Your task to perform on an android device: change notifications settings Image 0: 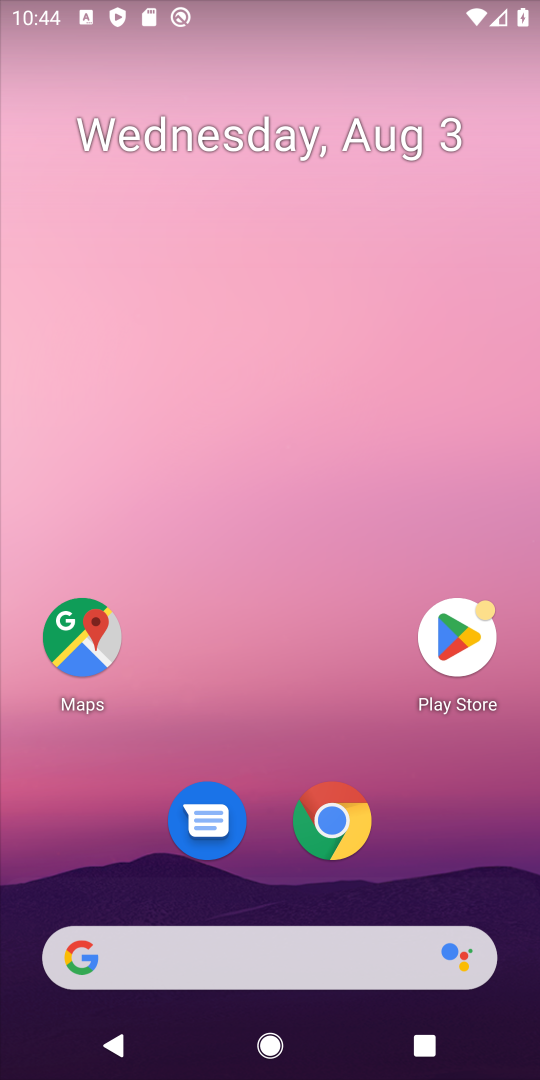
Step 0: drag from (198, 957) to (316, 19)
Your task to perform on an android device: change notifications settings Image 1: 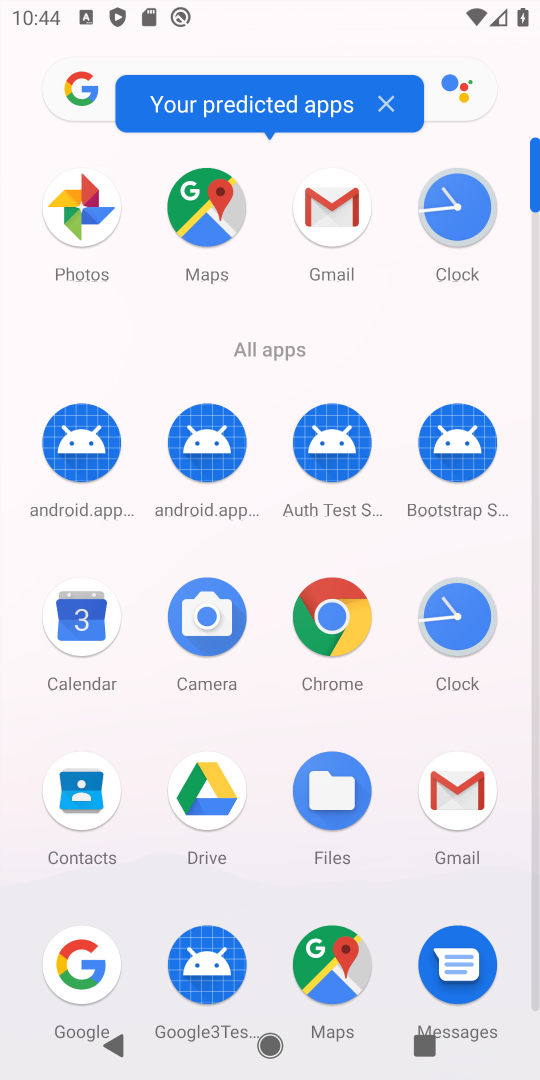
Step 1: drag from (264, 757) to (307, 32)
Your task to perform on an android device: change notifications settings Image 2: 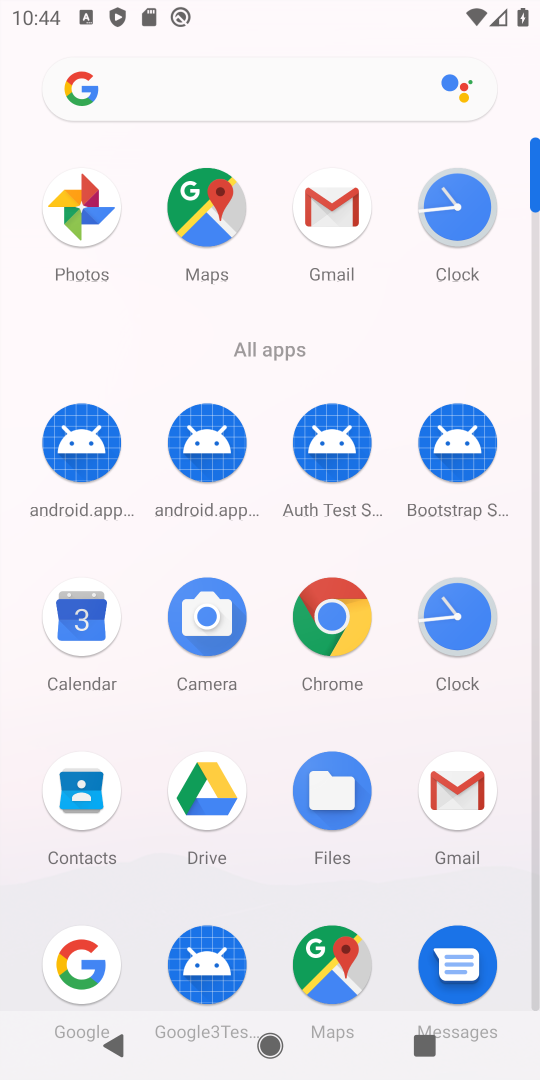
Step 2: drag from (260, 892) to (278, 521)
Your task to perform on an android device: change notifications settings Image 3: 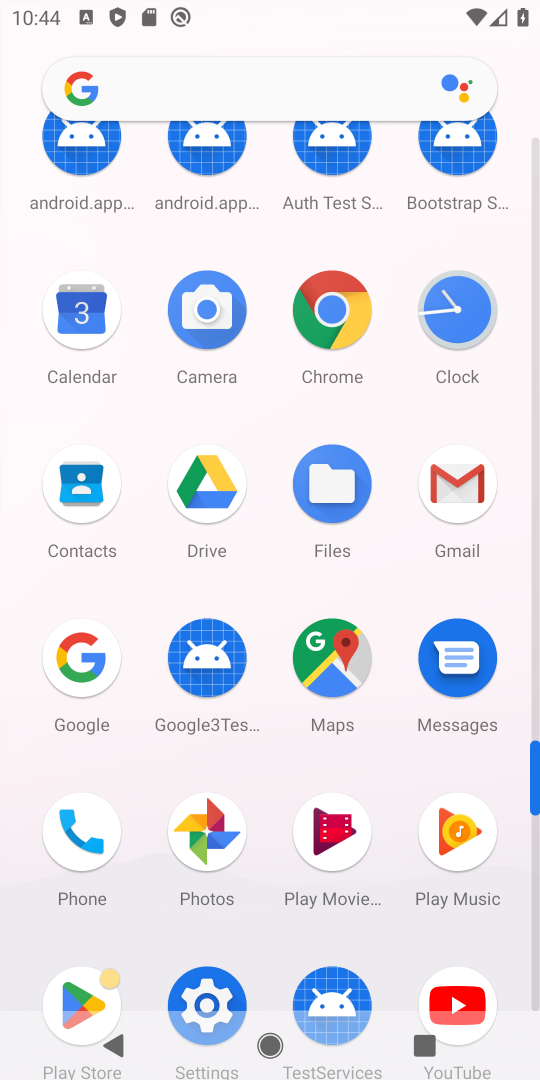
Step 3: click (203, 976)
Your task to perform on an android device: change notifications settings Image 4: 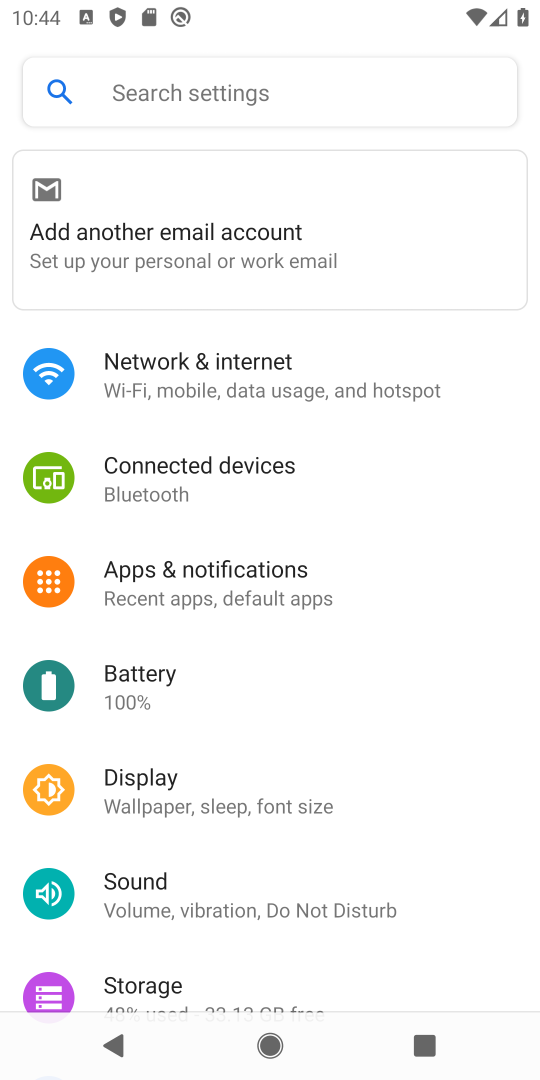
Step 4: click (166, 612)
Your task to perform on an android device: change notifications settings Image 5: 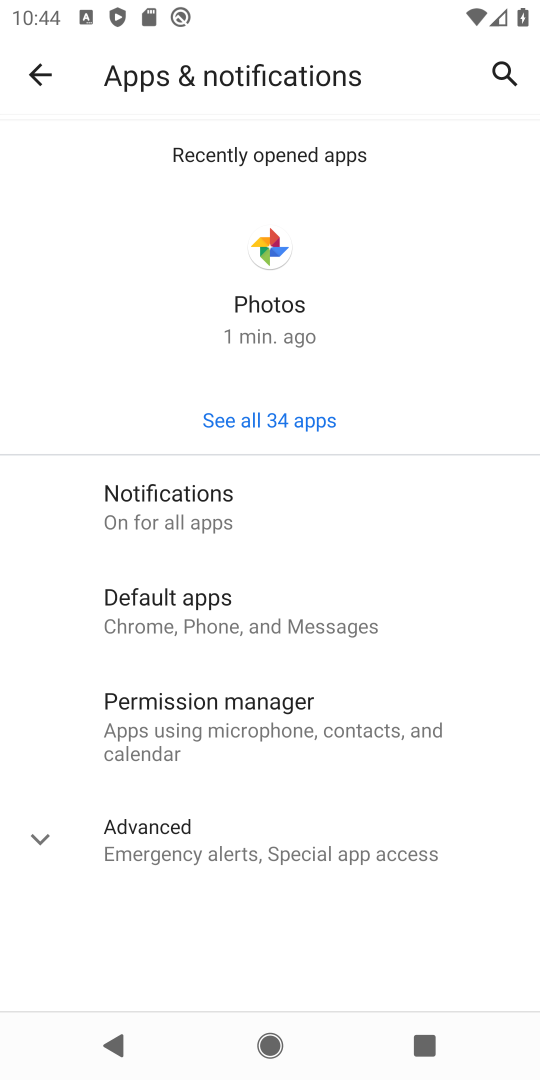
Step 5: click (190, 508)
Your task to perform on an android device: change notifications settings Image 6: 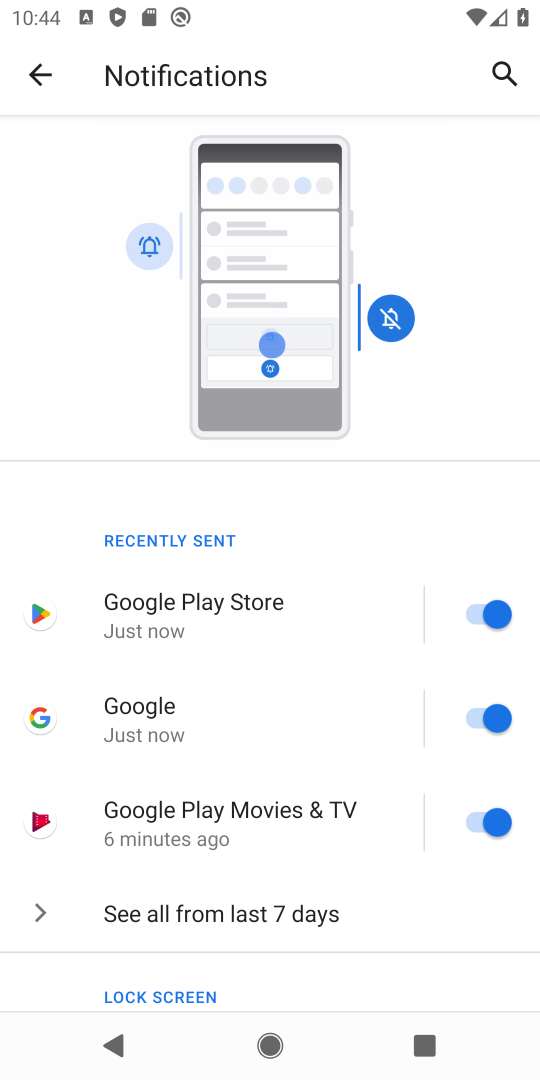
Step 6: click (470, 609)
Your task to perform on an android device: change notifications settings Image 7: 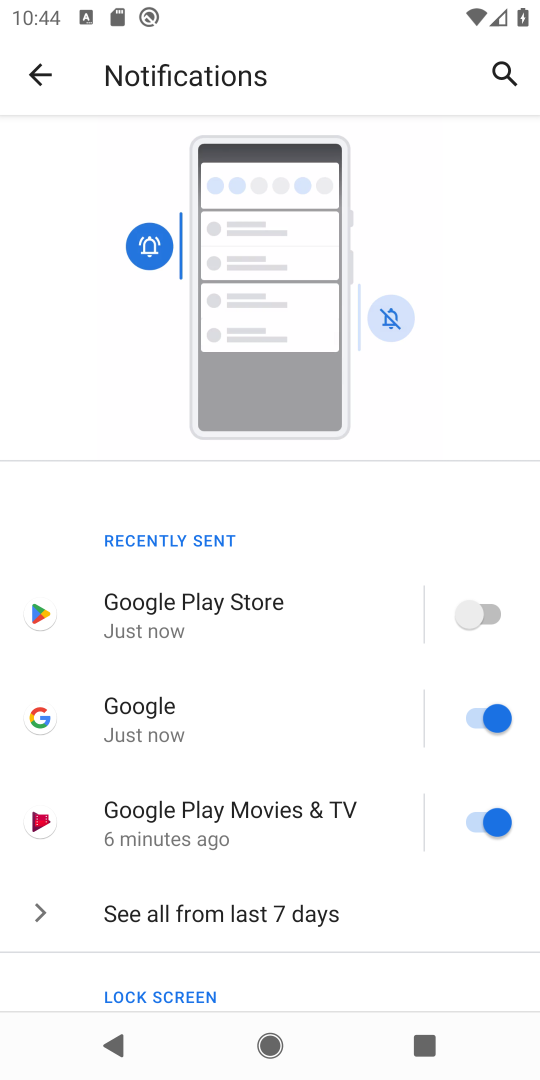
Step 7: task complete